Your task to perform on an android device: Go to battery settings Image 0: 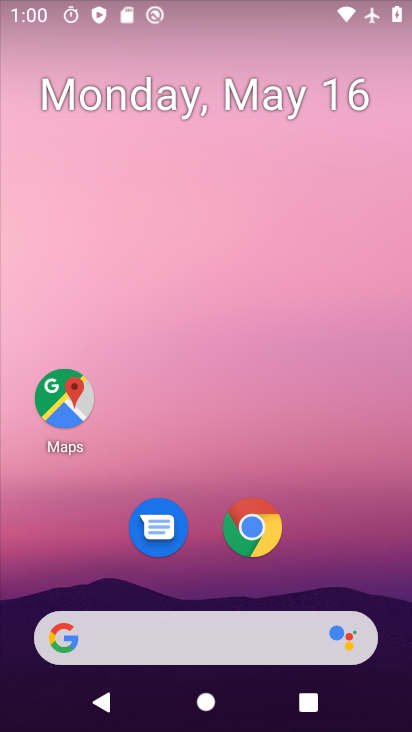
Step 0: press home button
Your task to perform on an android device: Go to battery settings Image 1: 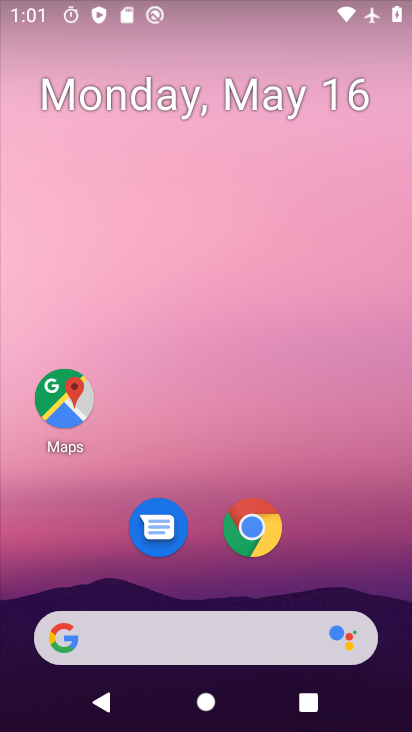
Step 1: drag from (187, 641) to (326, 143)
Your task to perform on an android device: Go to battery settings Image 2: 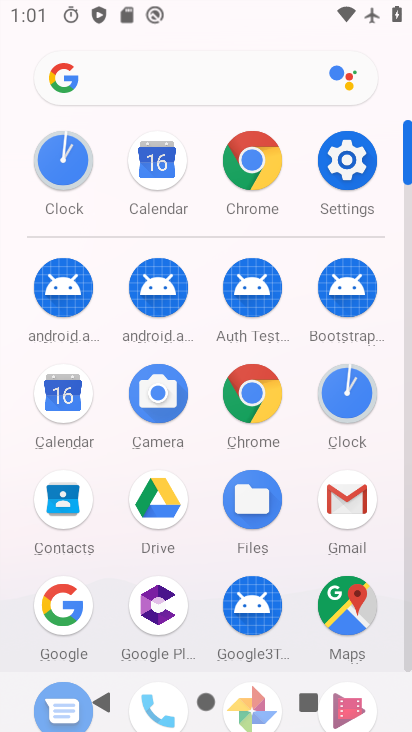
Step 2: click (349, 249)
Your task to perform on an android device: Go to battery settings Image 3: 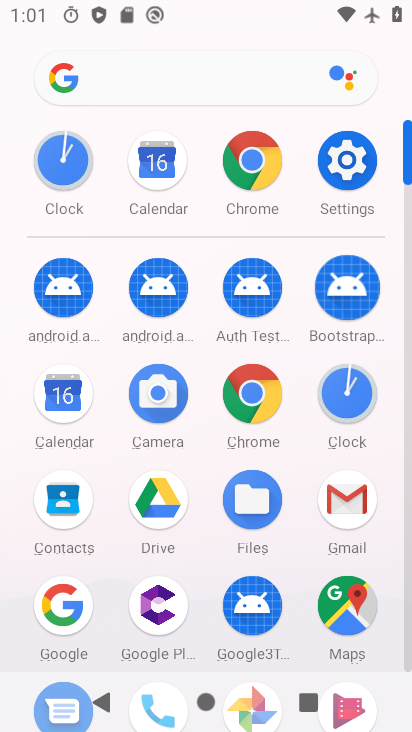
Step 3: click (333, 199)
Your task to perform on an android device: Go to battery settings Image 4: 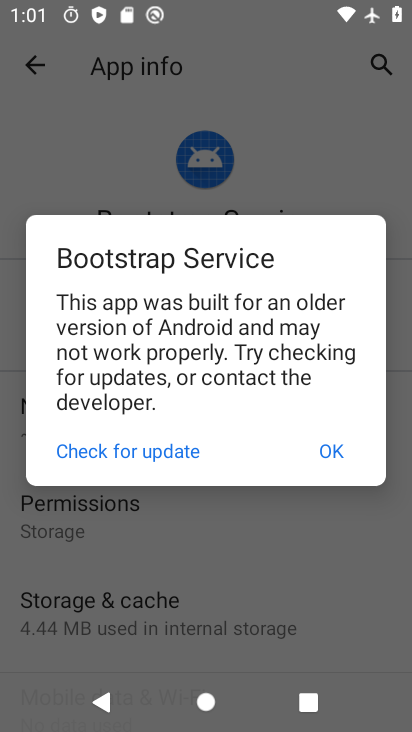
Step 4: press back button
Your task to perform on an android device: Go to battery settings Image 5: 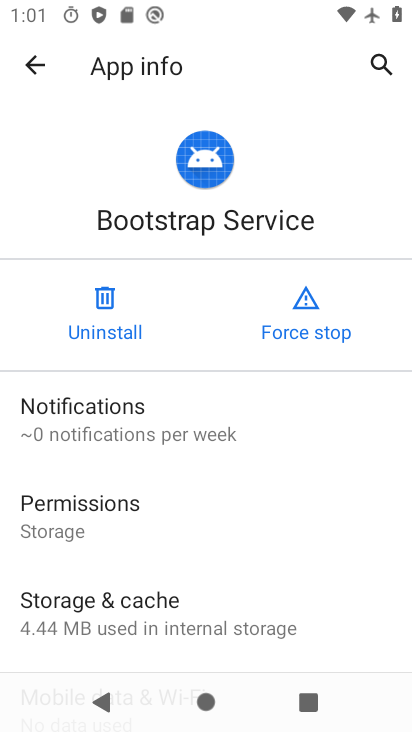
Step 5: press back button
Your task to perform on an android device: Go to battery settings Image 6: 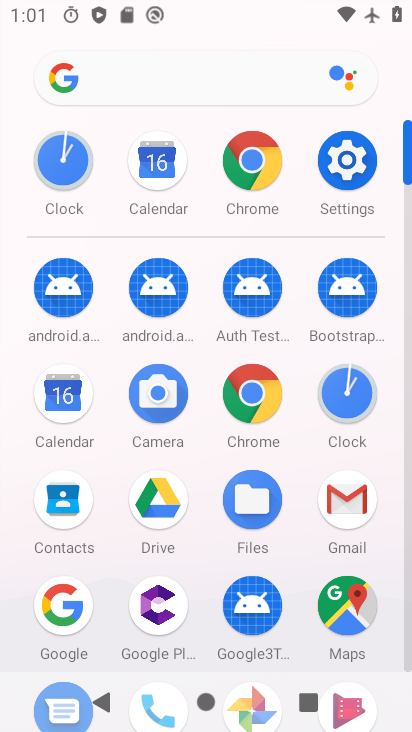
Step 6: click (347, 171)
Your task to perform on an android device: Go to battery settings Image 7: 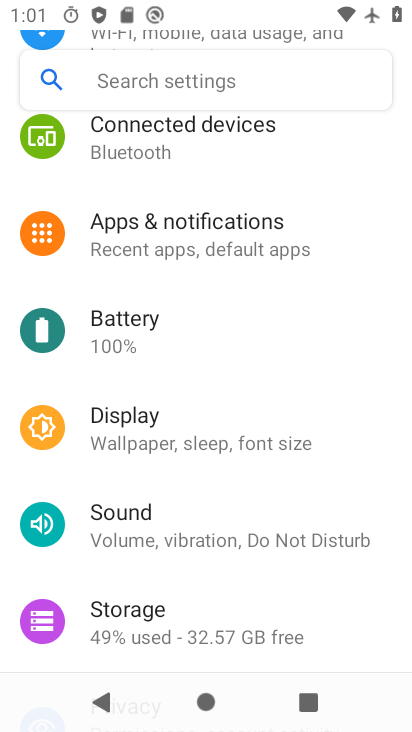
Step 7: click (110, 319)
Your task to perform on an android device: Go to battery settings Image 8: 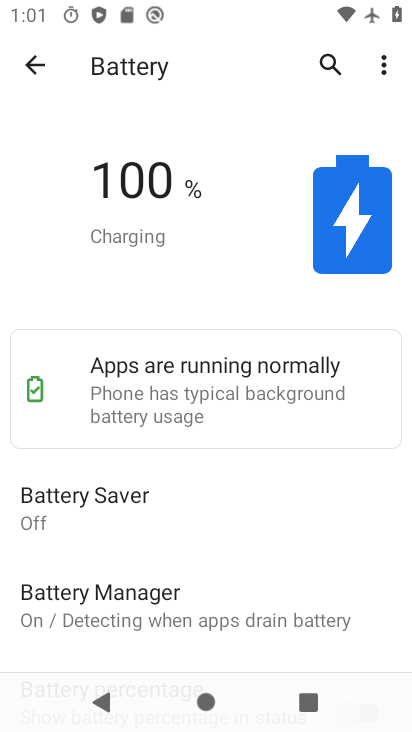
Step 8: task complete